Your task to perform on an android device: Open Youtube and go to the subscriptions tab Image 0: 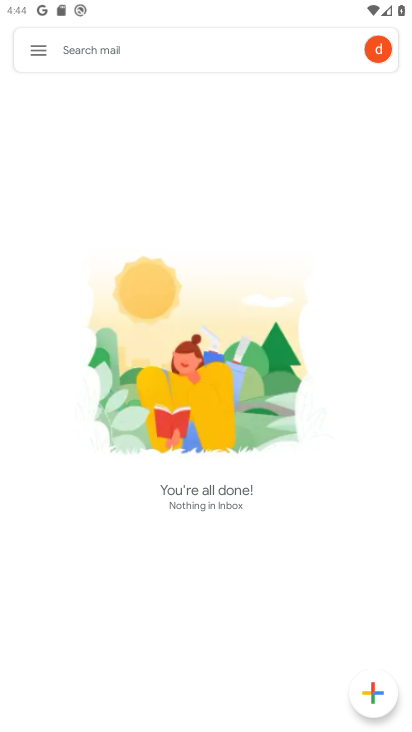
Step 0: press home button
Your task to perform on an android device: Open Youtube and go to the subscriptions tab Image 1: 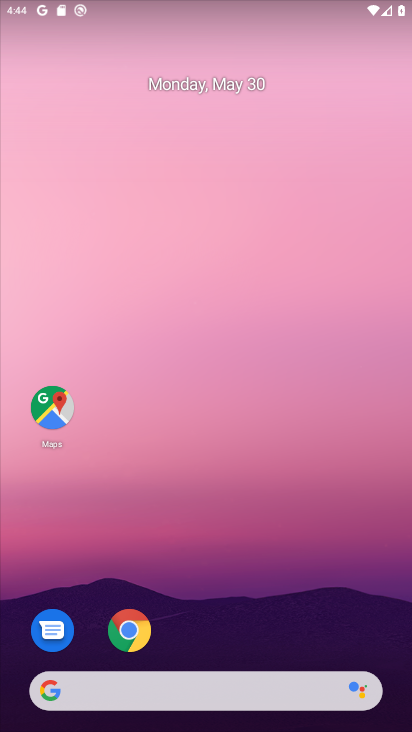
Step 1: drag from (313, 643) to (372, 81)
Your task to perform on an android device: Open Youtube and go to the subscriptions tab Image 2: 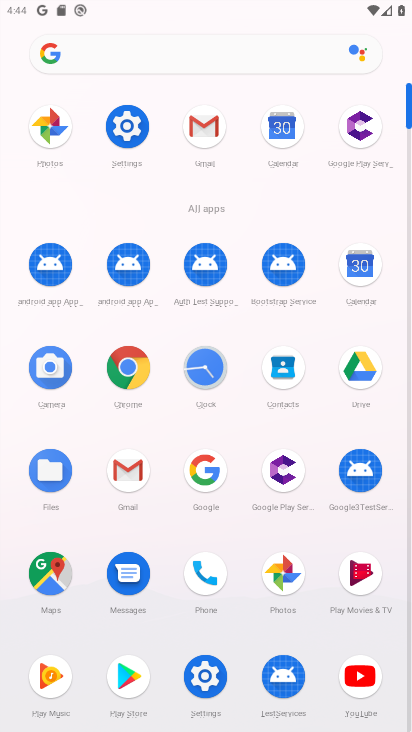
Step 2: click (355, 675)
Your task to perform on an android device: Open Youtube and go to the subscriptions tab Image 3: 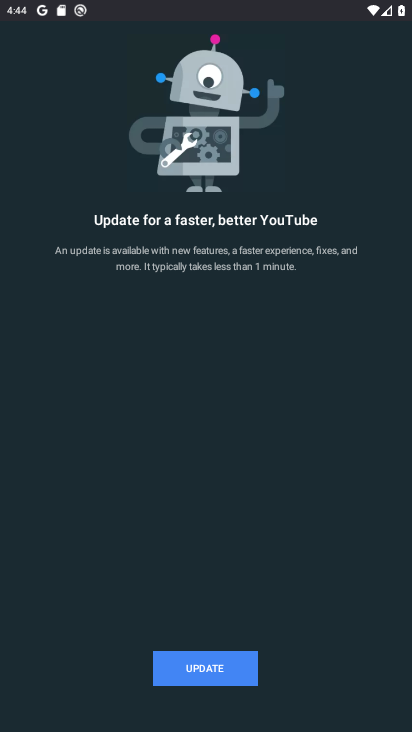
Step 3: click (196, 666)
Your task to perform on an android device: Open Youtube and go to the subscriptions tab Image 4: 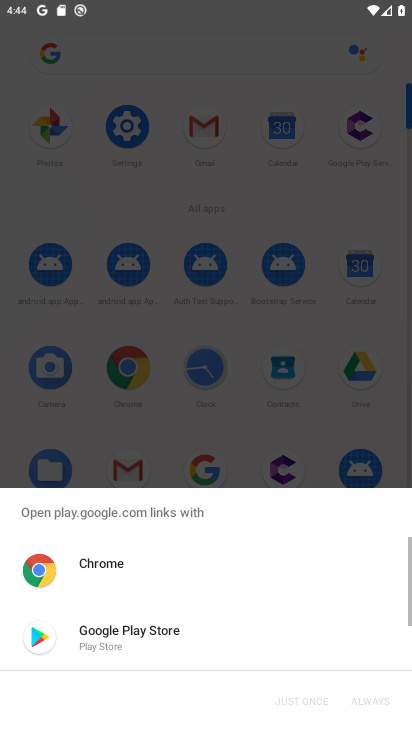
Step 4: click (101, 642)
Your task to perform on an android device: Open Youtube and go to the subscriptions tab Image 5: 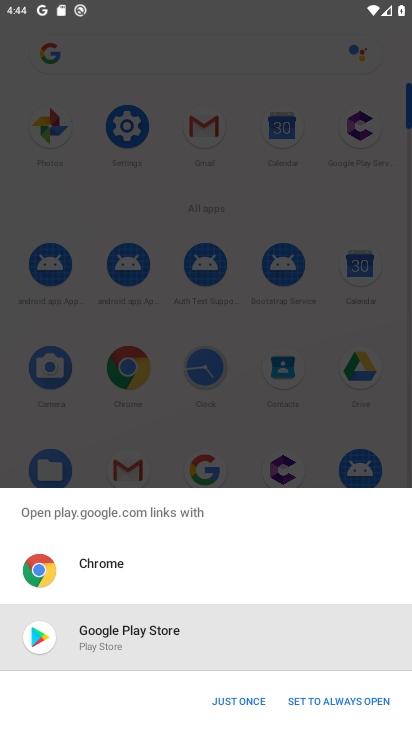
Step 5: click (227, 697)
Your task to perform on an android device: Open Youtube and go to the subscriptions tab Image 6: 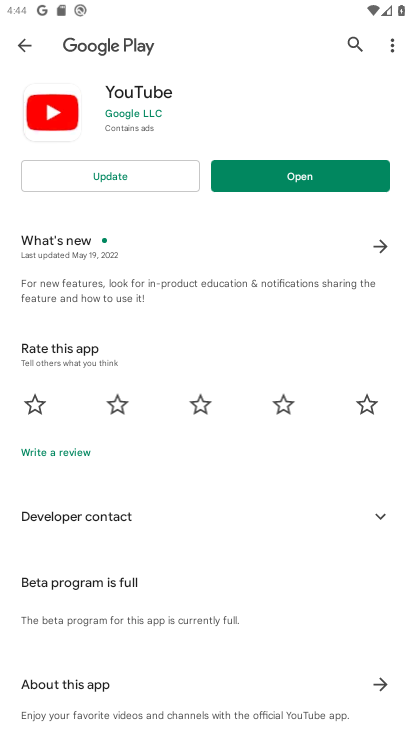
Step 6: click (162, 180)
Your task to perform on an android device: Open Youtube and go to the subscriptions tab Image 7: 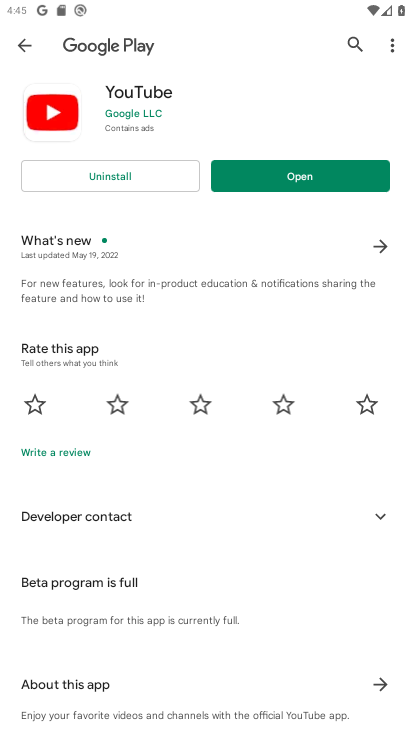
Step 7: click (268, 180)
Your task to perform on an android device: Open Youtube and go to the subscriptions tab Image 8: 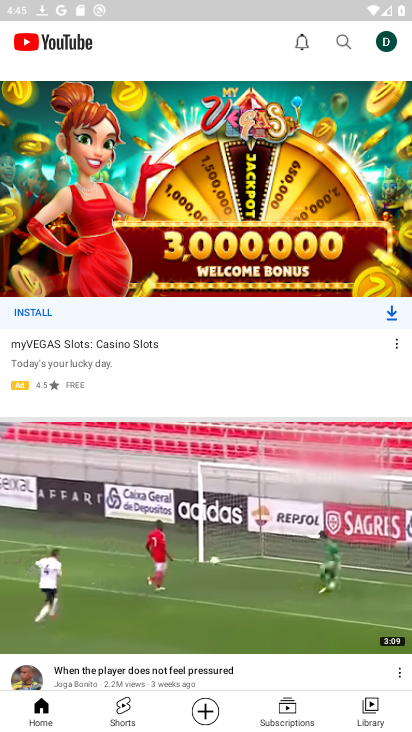
Step 8: click (290, 708)
Your task to perform on an android device: Open Youtube and go to the subscriptions tab Image 9: 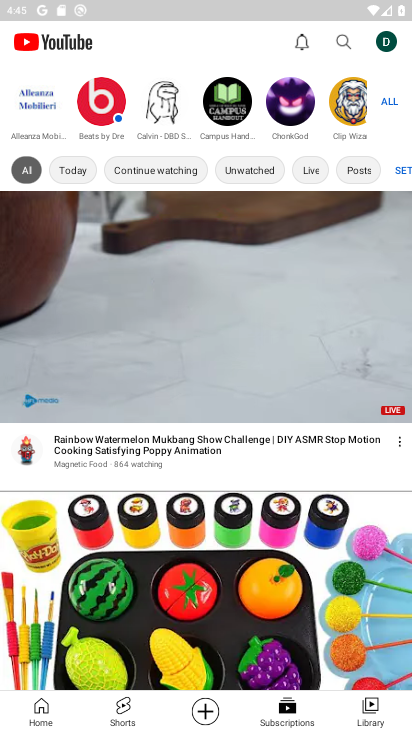
Step 9: task complete